Your task to perform on an android device: turn on the 12-hour format for clock Image 0: 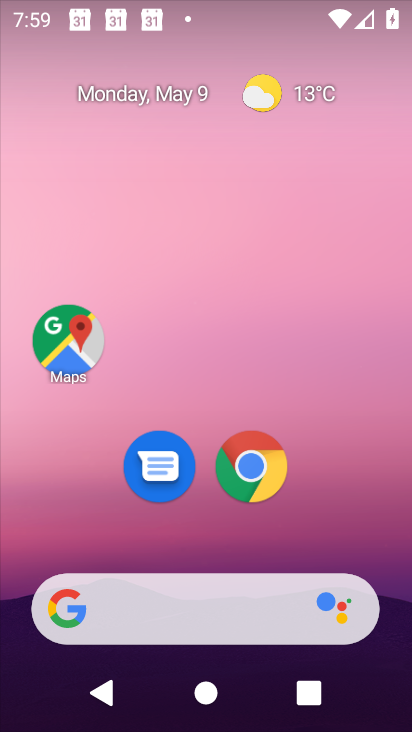
Step 0: drag from (326, 507) to (291, 183)
Your task to perform on an android device: turn on the 12-hour format for clock Image 1: 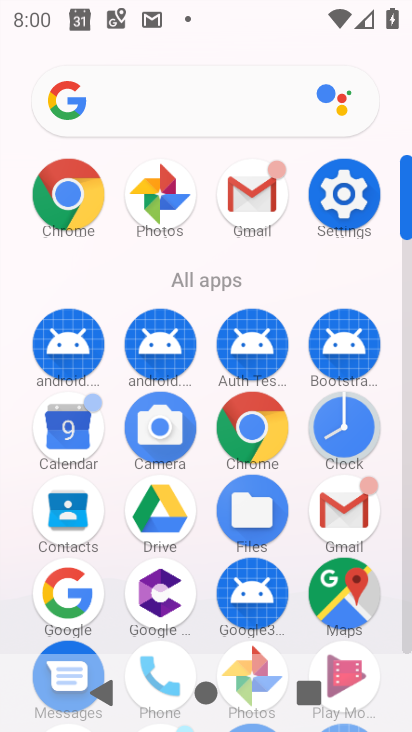
Step 1: click (351, 419)
Your task to perform on an android device: turn on the 12-hour format for clock Image 2: 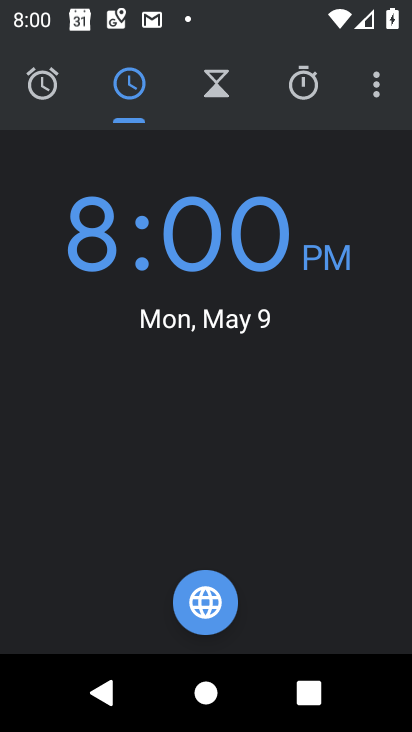
Step 2: click (366, 91)
Your task to perform on an android device: turn on the 12-hour format for clock Image 3: 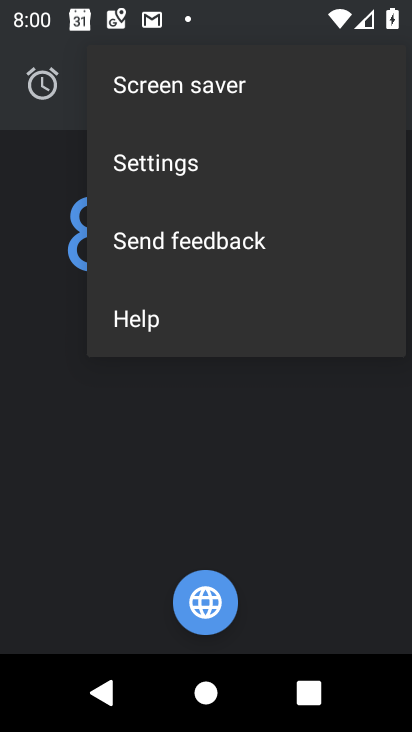
Step 3: click (143, 162)
Your task to perform on an android device: turn on the 12-hour format for clock Image 4: 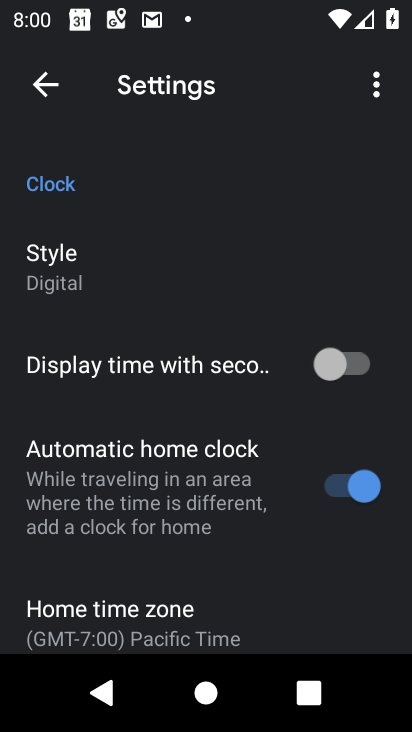
Step 4: drag from (219, 571) to (207, 211)
Your task to perform on an android device: turn on the 12-hour format for clock Image 5: 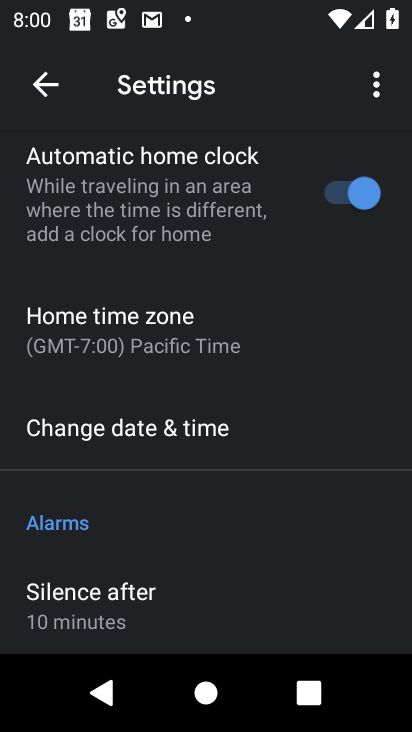
Step 5: click (179, 422)
Your task to perform on an android device: turn on the 12-hour format for clock Image 6: 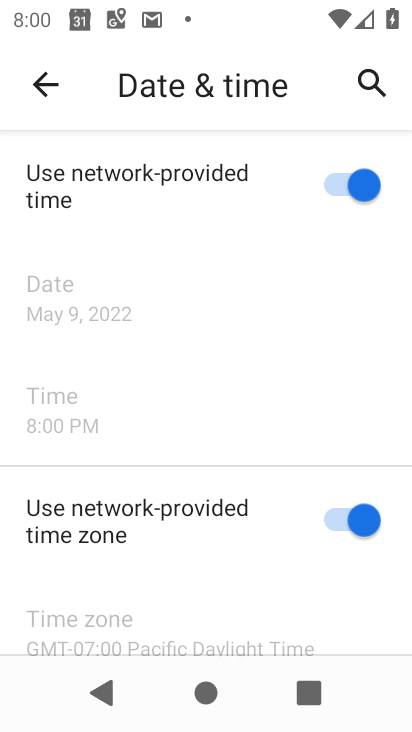
Step 6: drag from (166, 564) to (245, 181)
Your task to perform on an android device: turn on the 12-hour format for clock Image 7: 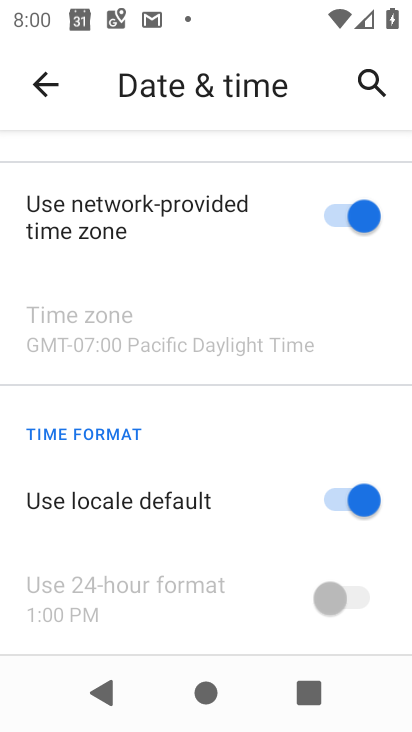
Step 7: drag from (260, 509) to (320, 348)
Your task to perform on an android device: turn on the 12-hour format for clock Image 8: 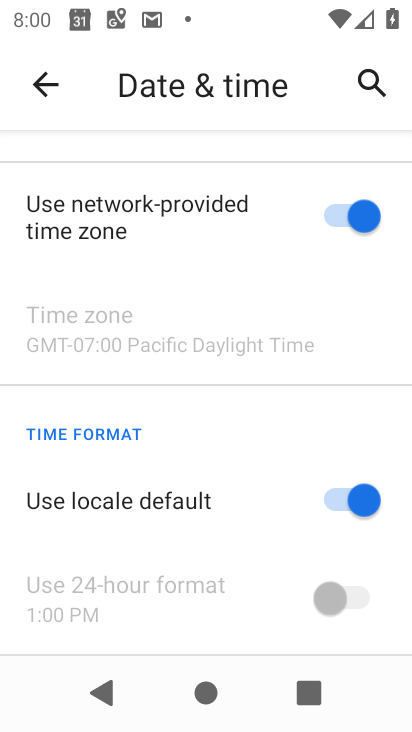
Step 8: click (344, 485)
Your task to perform on an android device: turn on the 12-hour format for clock Image 9: 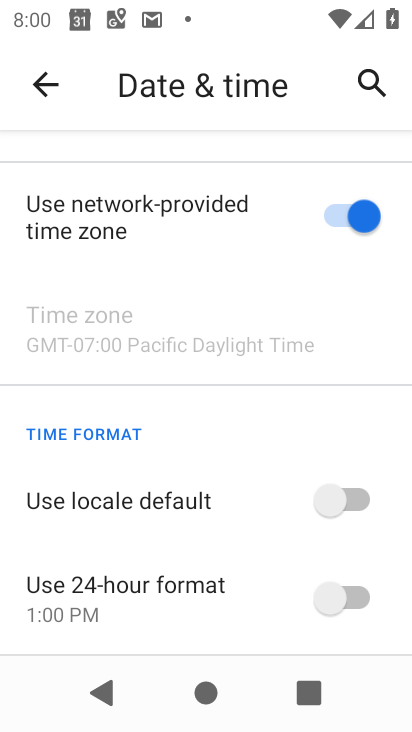
Step 9: click (360, 593)
Your task to perform on an android device: turn on the 12-hour format for clock Image 10: 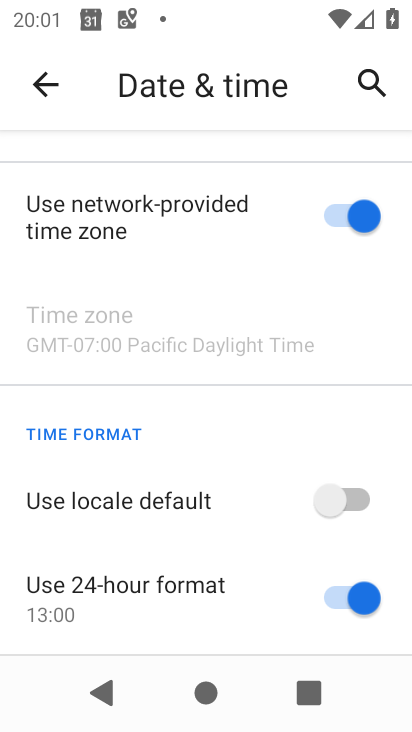
Step 10: task complete